Your task to perform on an android device: Find coffee shops on Maps Image 0: 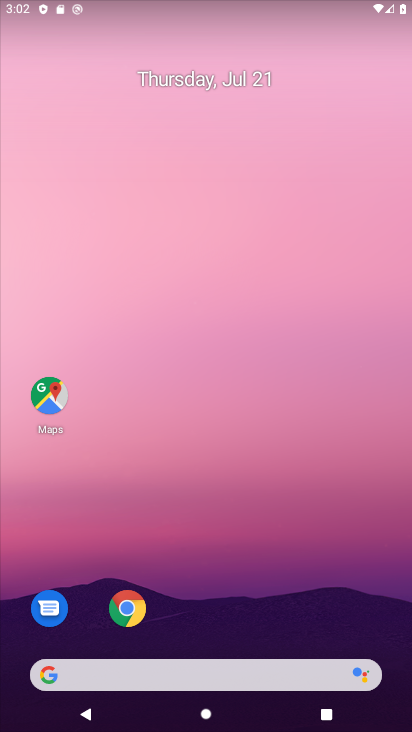
Step 0: drag from (310, 662) to (309, 37)
Your task to perform on an android device: Find coffee shops on Maps Image 1: 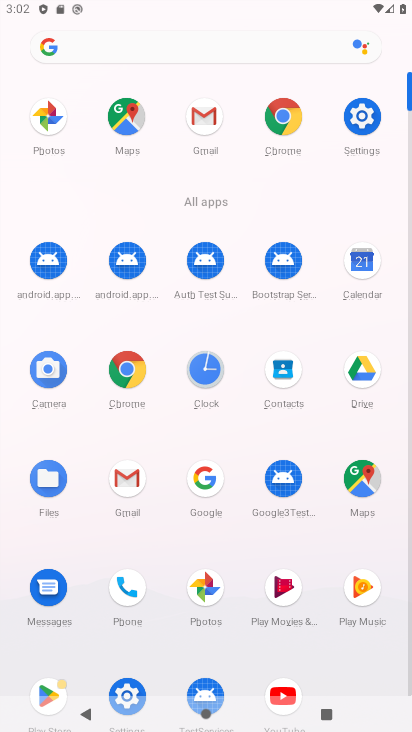
Step 1: click (360, 490)
Your task to perform on an android device: Find coffee shops on Maps Image 2: 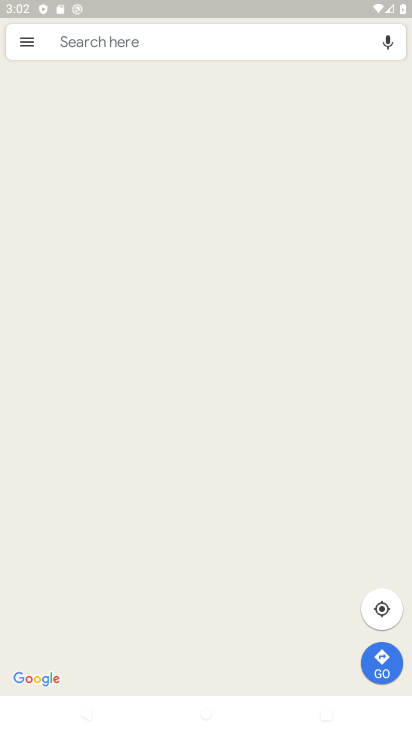
Step 2: click (238, 42)
Your task to perform on an android device: Find coffee shops on Maps Image 3: 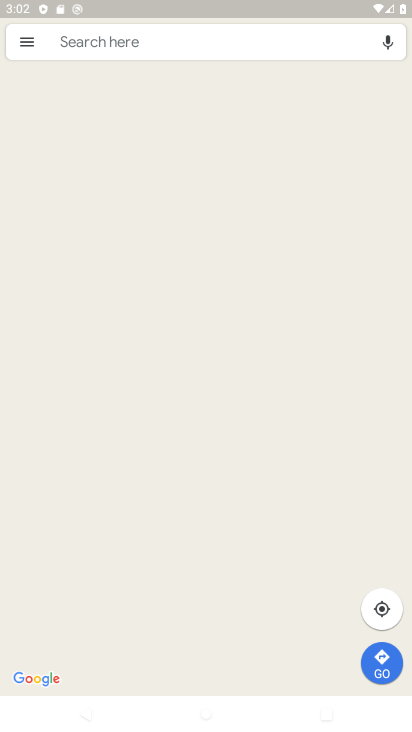
Step 3: click (238, 42)
Your task to perform on an android device: Find coffee shops on Maps Image 4: 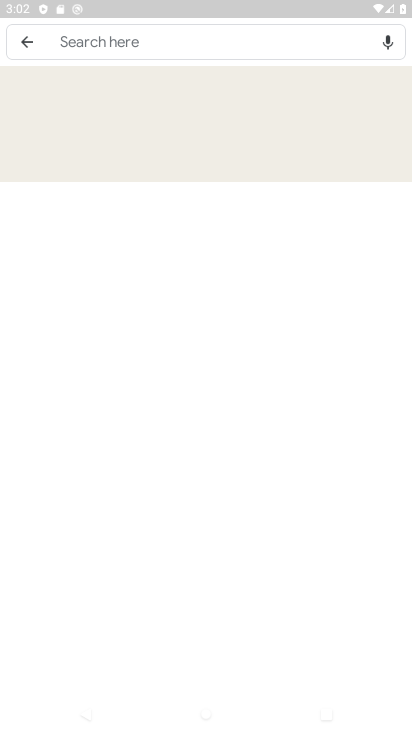
Step 4: click (258, 38)
Your task to perform on an android device: Find coffee shops on Maps Image 5: 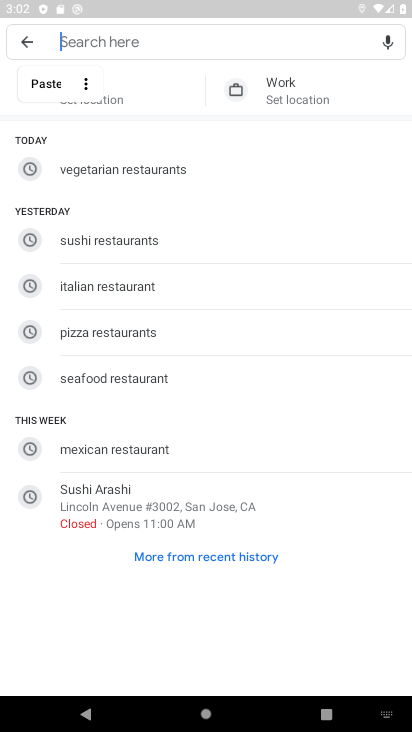
Step 5: type "coffee shops"
Your task to perform on an android device: Find coffee shops on Maps Image 6: 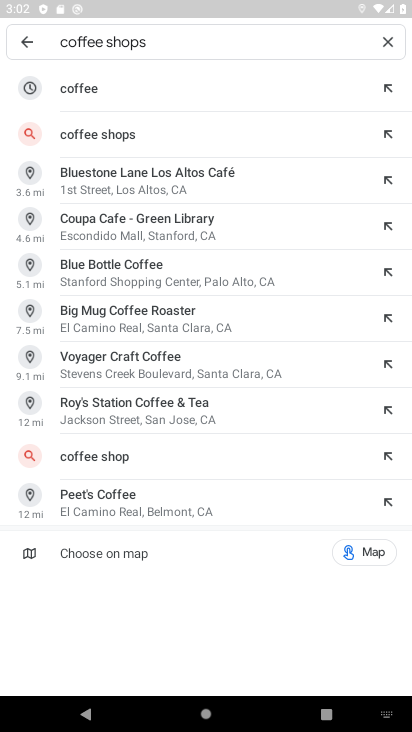
Step 6: click (134, 137)
Your task to perform on an android device: Find coffee shops on Maps Image 7: 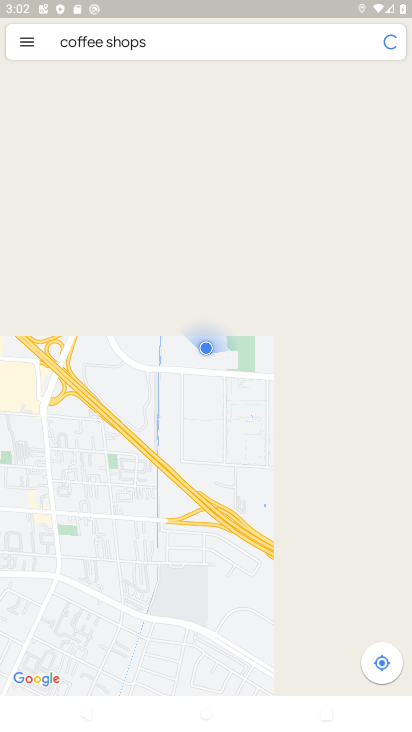
Step 7: task complete